Your task to perform on an android device: refresh tabs in the chrome app Image 0: 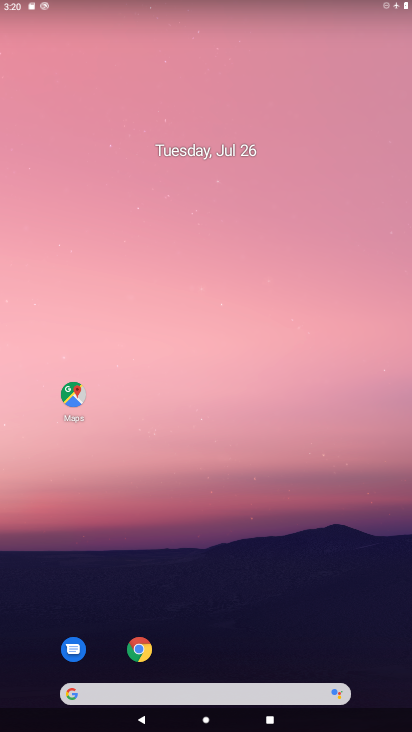
Step 0: click (131, 646)
Your task to perform on an android device: refresh tabs in the chrome app Image 1: 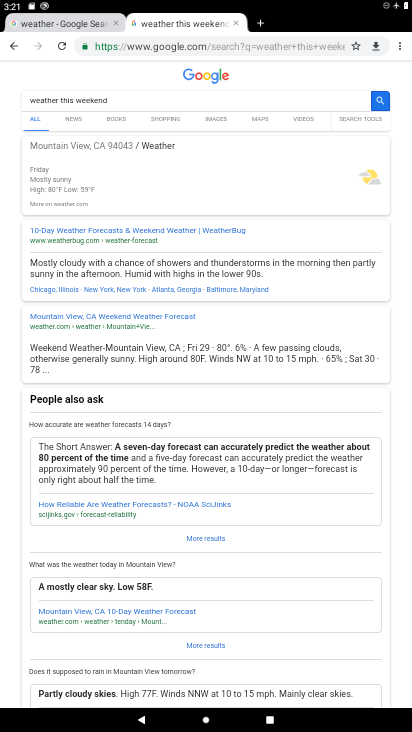
Step 1: drag from (397, 54) to (58, 45)
Your task to perform on an android device: refresh tabs in the chrome app Image 2: 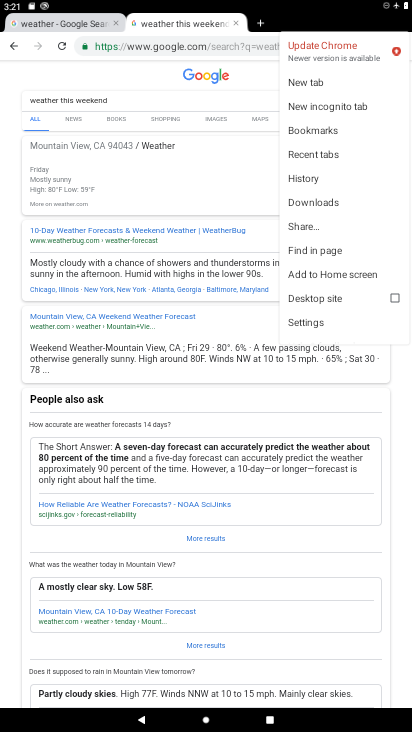
Step 2: click (58, 45)
Your task to perform on an android device: refresh tabs in the chrome app Image 3: 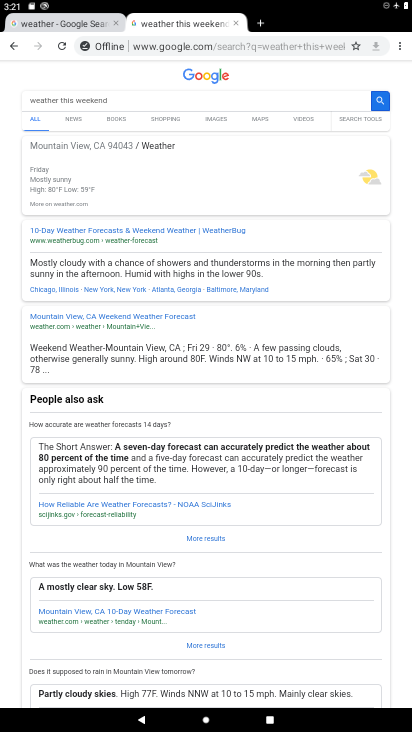
Step 3: task complete